Your task to perform on an android device: delete a single message in the gmail app Image 0: 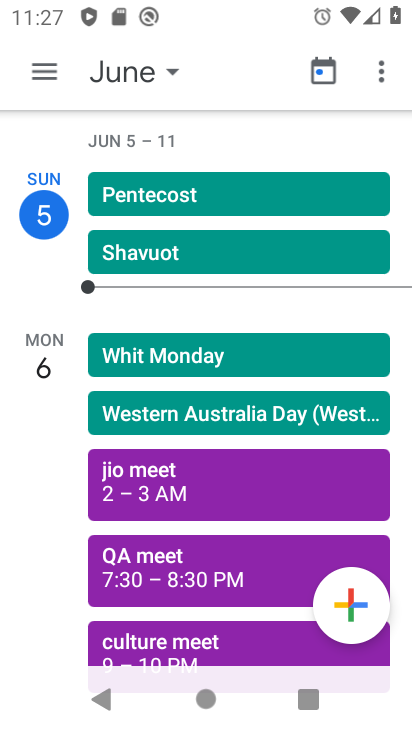
Step 0: press home button
Your task to perform on an android device: delete a single message in the gmail app Image 1: 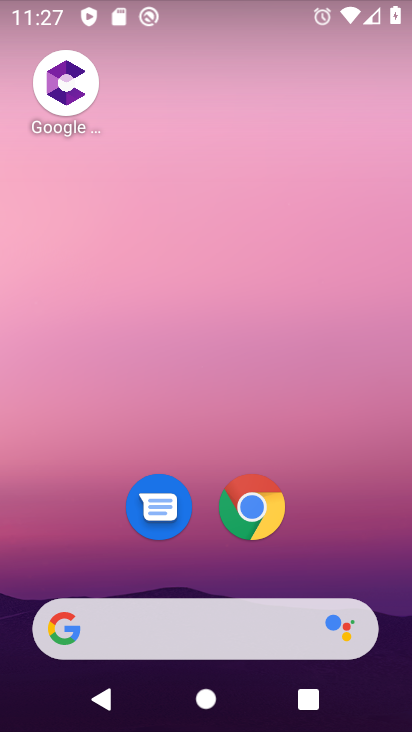
Step 1: drag from (228, 723) to (201, 35)
Your task to perform on an android device: delete a single message in the gmail app Image 2: 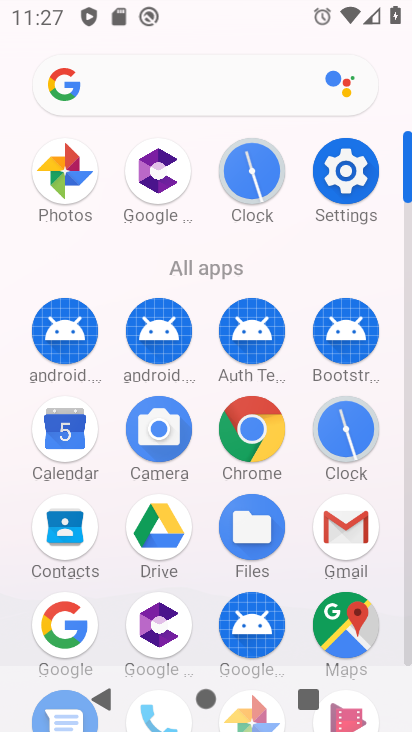
Step 2: click (352, 524)
Your task to perform on an android device: delete a single message in the gmail app Image 3: 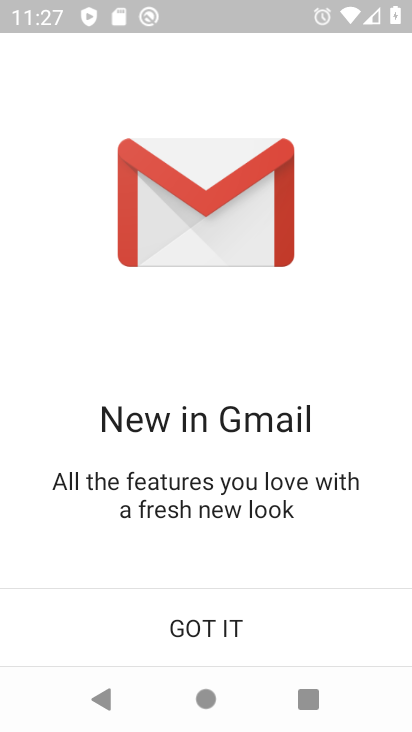
Step 3: click (208, 638)
Your task to perform on an android device: delete a single message in the gmail app Image 4: 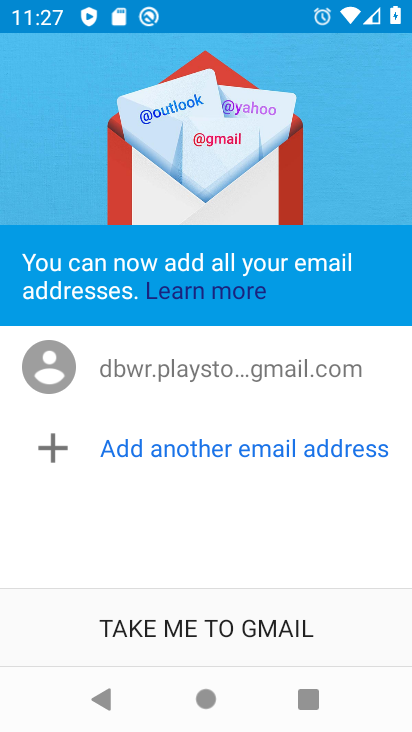
Step 4: click (205, 625)
Your task to perform on an android device: delete a single message in the gmail app Image 5: 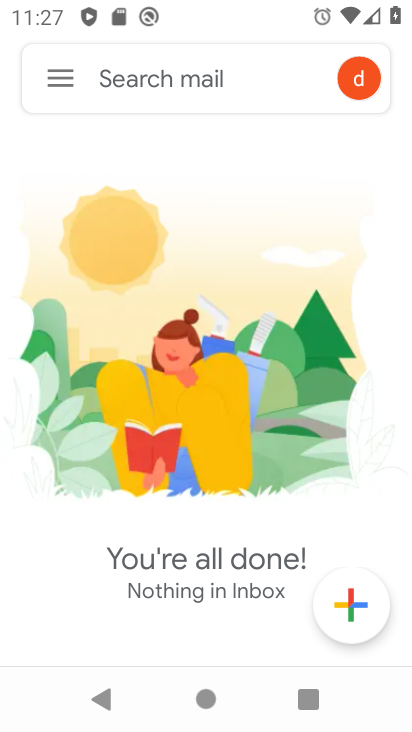
Step 5: task complete